Your task to perform on an android device: Check the news Image 0: 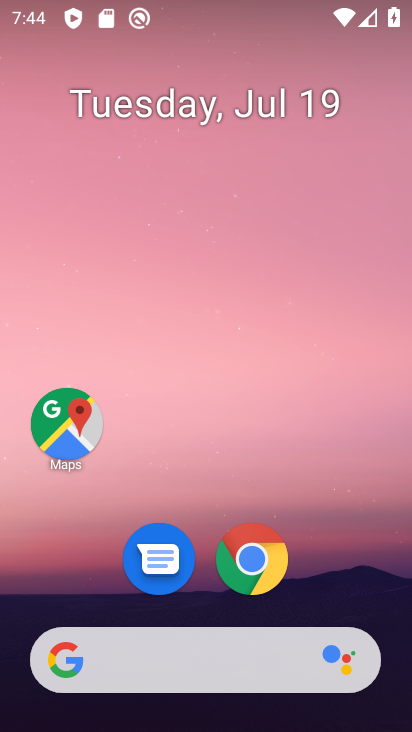
Step 0: click (201, 669)
Your task to perform on an android device: Check the news Image 1: 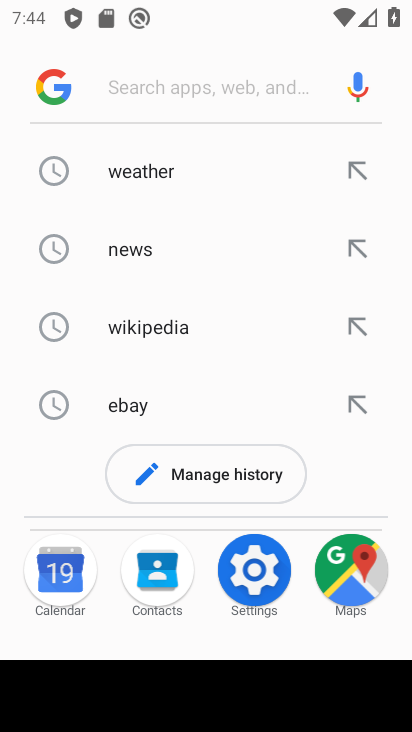
Step 1: click (136, 258)
Your task to perform on an android device: Check the news Image 2: 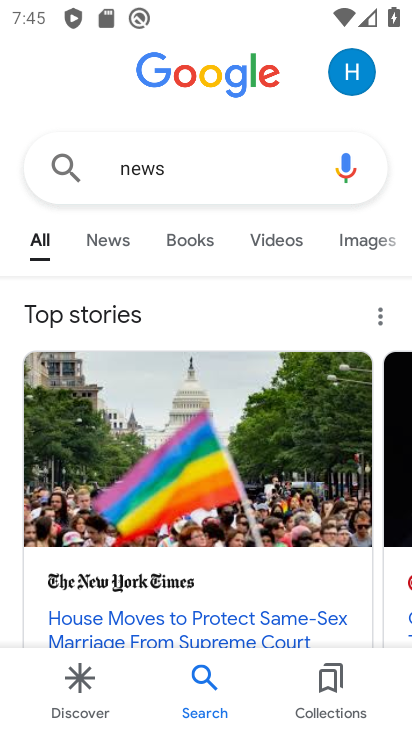
Step 2: task complete